Your task to perform on an android device: change the upload size in google photos Image 0: 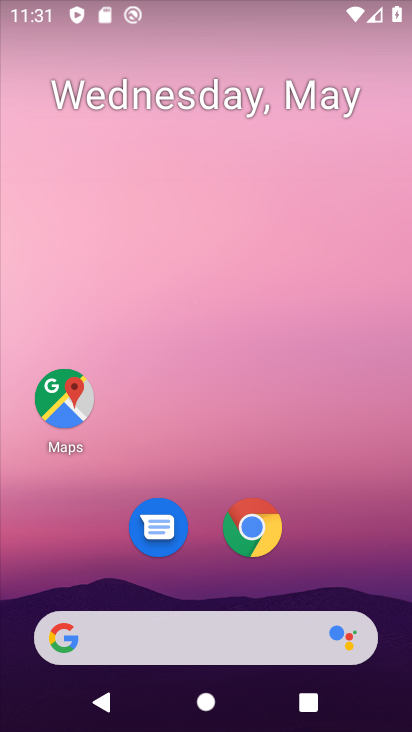
Step 0: press home button
Your task to perform on an android device: change the upload size in google photos Image 1: 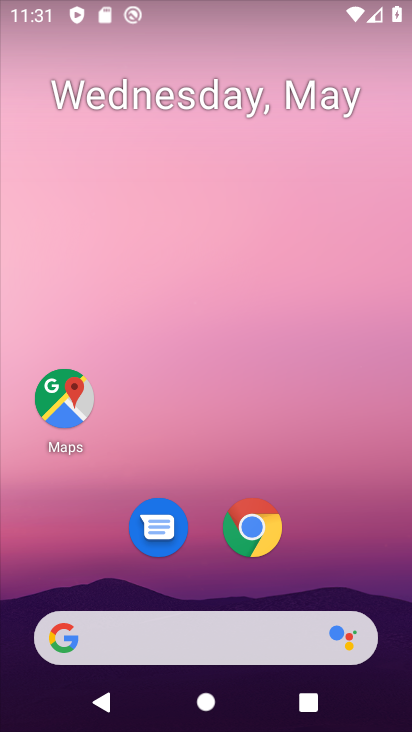
Step 1: drag from (378, 558) to (364, 7)
Your task to perform on an android device: change the upload size in google photos Image 2: 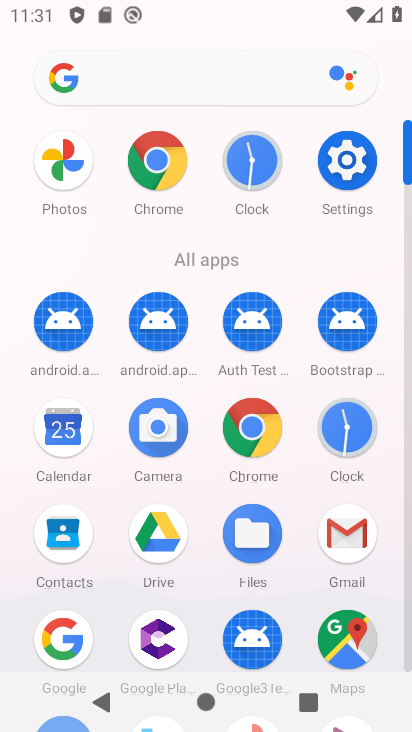
Step 2: click (62, 160)
Your task to perform on an android device: change the upload size in google photos Image 3: 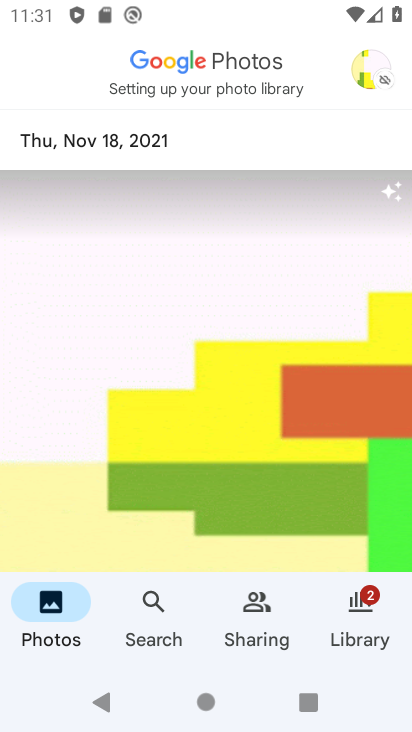
Step 3: click (351, 625)
Your task to perform on an android device: change the upload size in google photos Image 4: 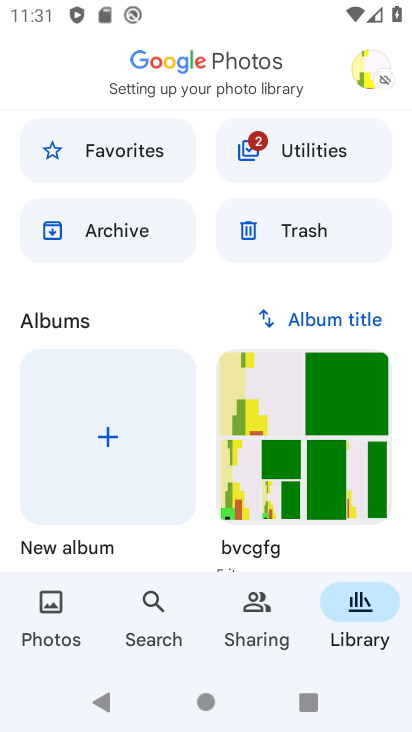
Step 4: click (27, 646)
Your task to perform on an android device: change the upload size in google photos Image 5: 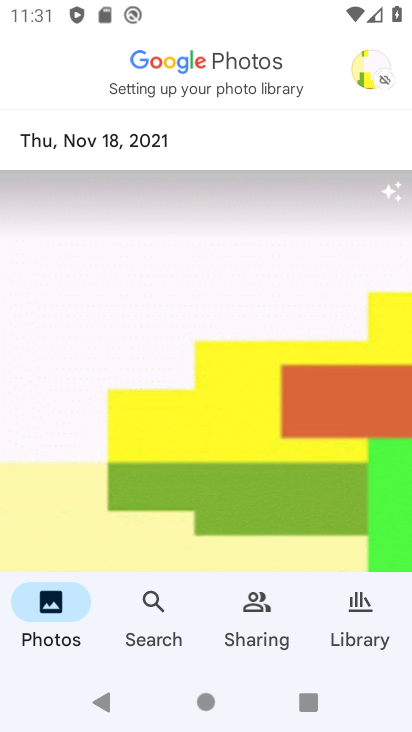
Step 5: click (377, 75)
Your task to perform on an android device: change the upload size in google photos Image 6: 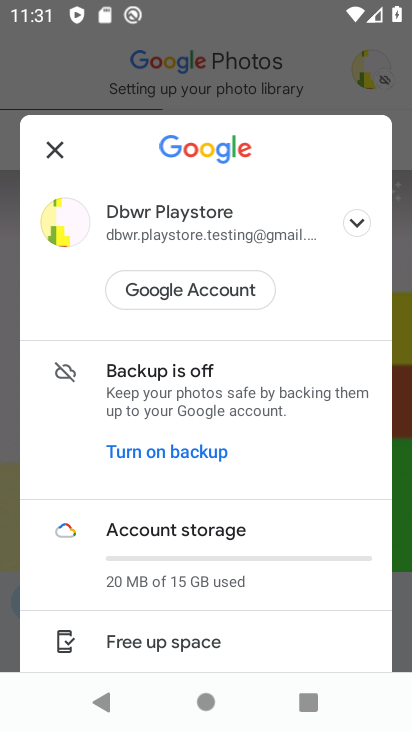
Step 6: drag from (233, 599) to (225, 389)
Your task to perform on an android device: change the upload size in google photos Image 7: 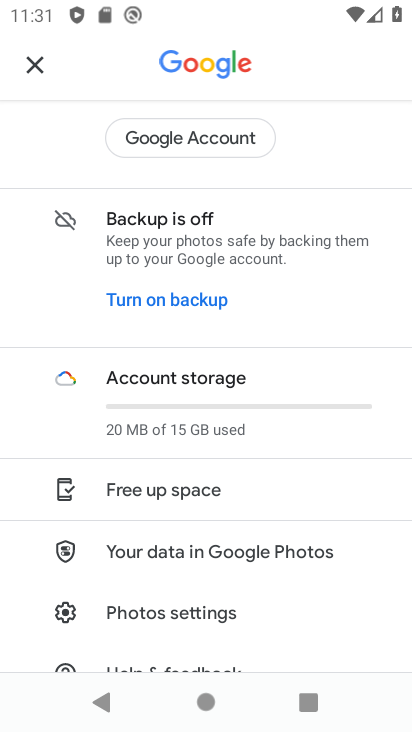
Step 7: click (151, 621)
Your task to perform on an android device: change the upload size in google photos Image 8: 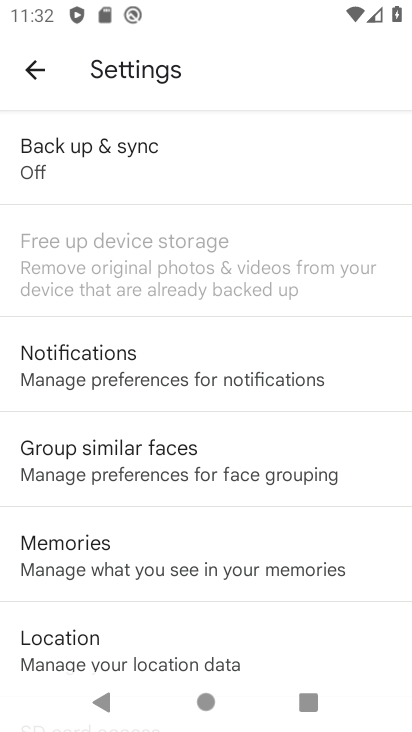
Step 8: click (176, 161)
Your task to perform on an android device: change the upload size in google photos Image 9: 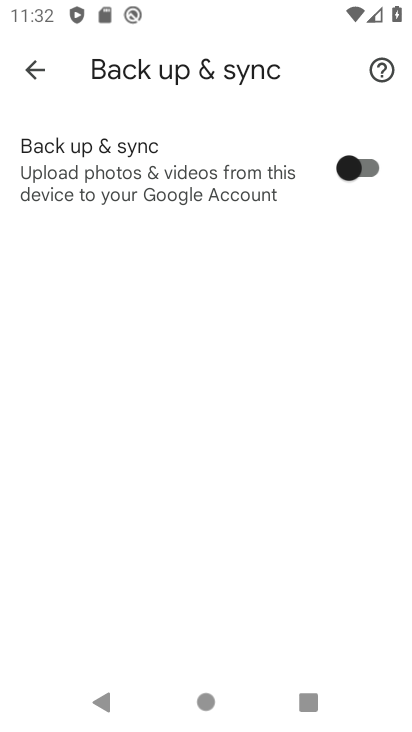
Step 9: task complete